Your task to perform on an android device: Open eBay Image 0: 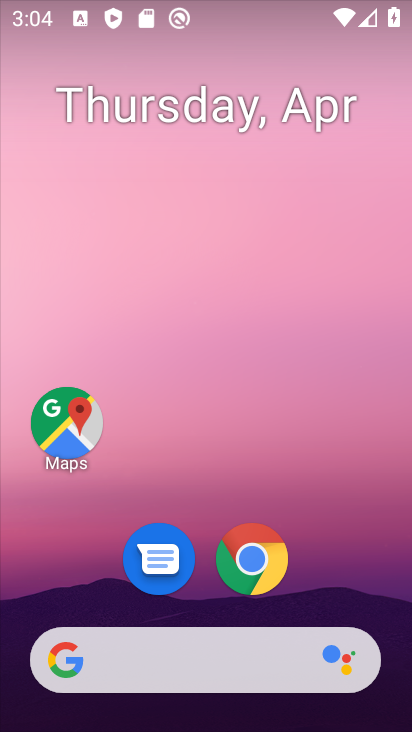
Step 0: click (261, 558)
Your task to perform on an android device: Open eBay Image 1: 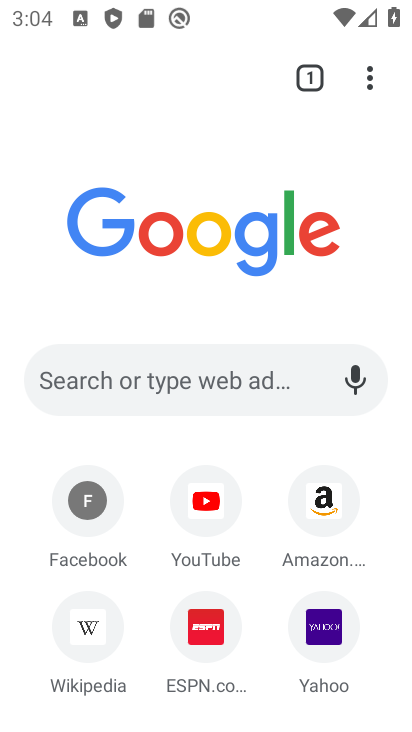
Step 1: click (200, 361)
Your task to perform on an android device: Open eBay Image 2: 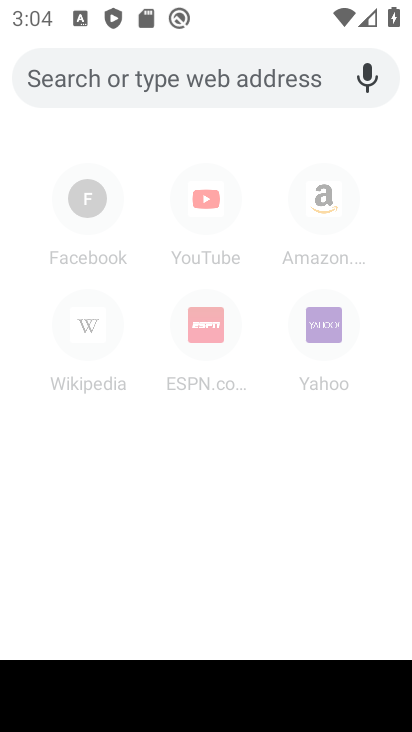
Step 2: type "ebay"
Your task to perform on an android device: Open eBay Image 3: 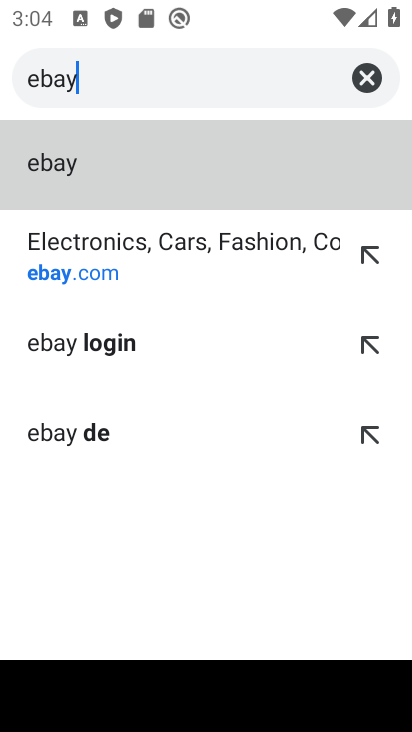
Step 3: click (104, 218)
Your task to perform on an android device: Open eBay Image 4: 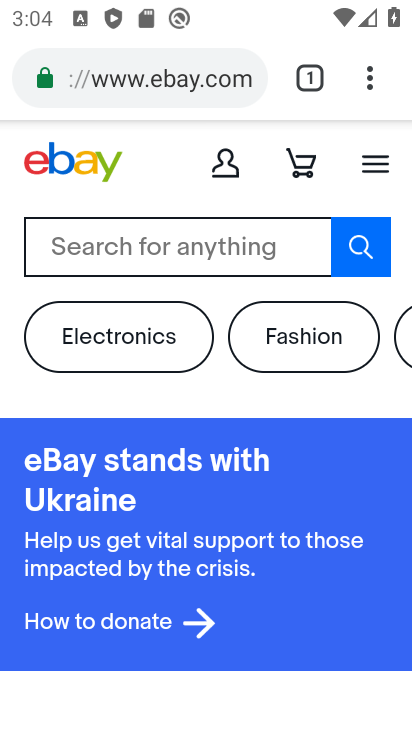
Step 4: task complete